Your task to perform on an android device: Go to battery settings Image 0: 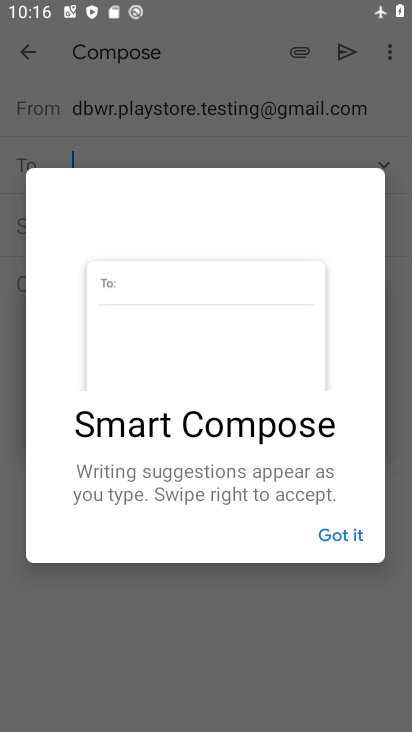
Step 0: press home button
Your task to perform on an android device: Go to battery settings Image 1: 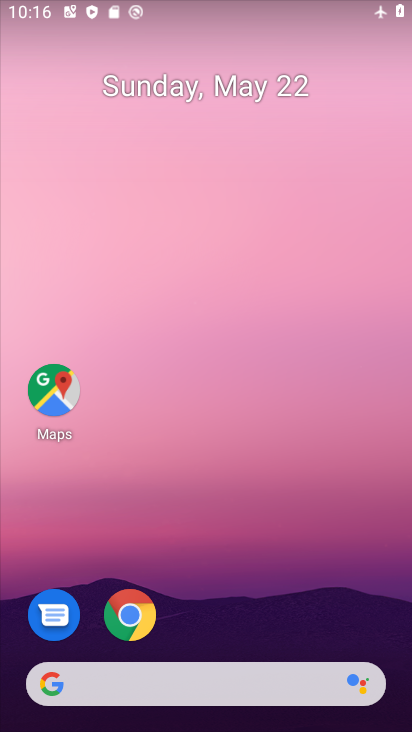
Step 1: drag from (296, 612) to (218, 156)
Your task to perform on an android device: Go to battery settings Image 2: 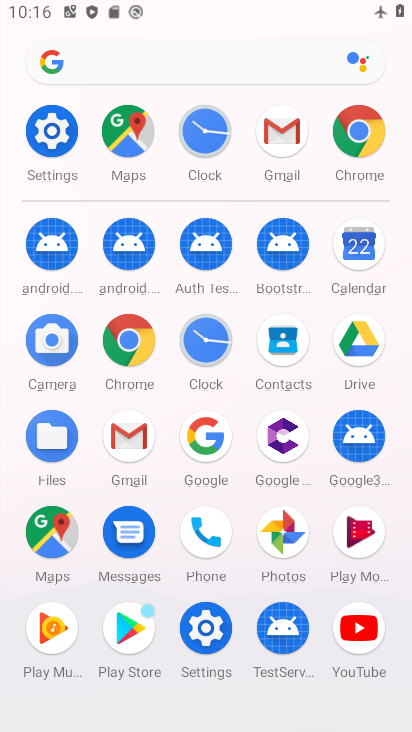
Step 2: click (50, 130)
Your task to perform on an android device: Go to battery settings Image 3: 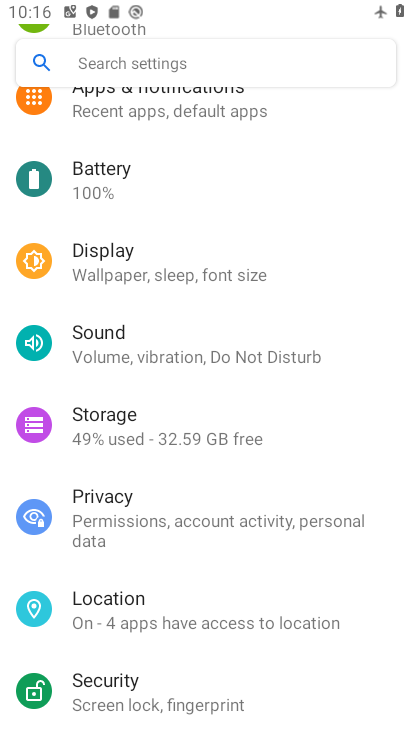
Step 3: click (108, 195)
Your task to perform on an android device: Go to battery settings Image 4: 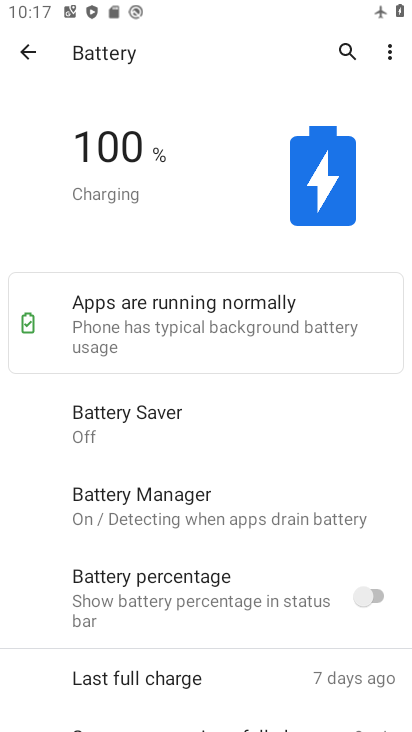
Step 4: task complete